Your task to perform on an android device: Turn off the flashlight Image 0: 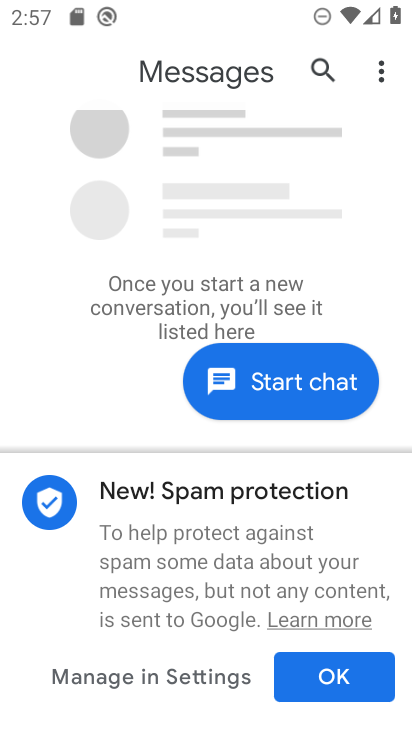
Step 0: press home button
Your task to perform on an android device: Turn off the flashlight Image 1: 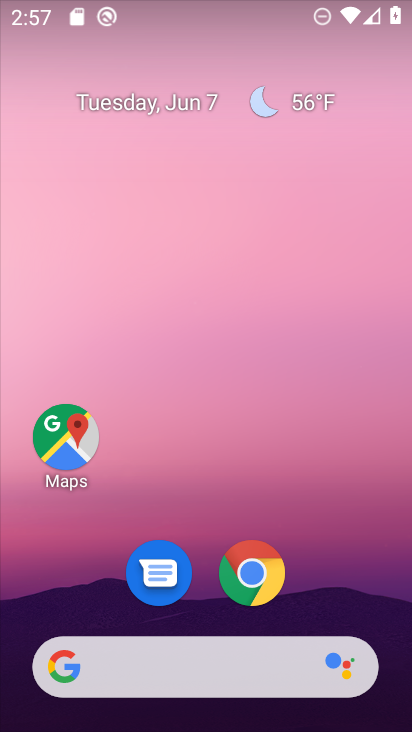
Step 1: drag from (360, 591) to (372, 61)
Your task to perform on an android device: Turn off the flashlight Image 2: 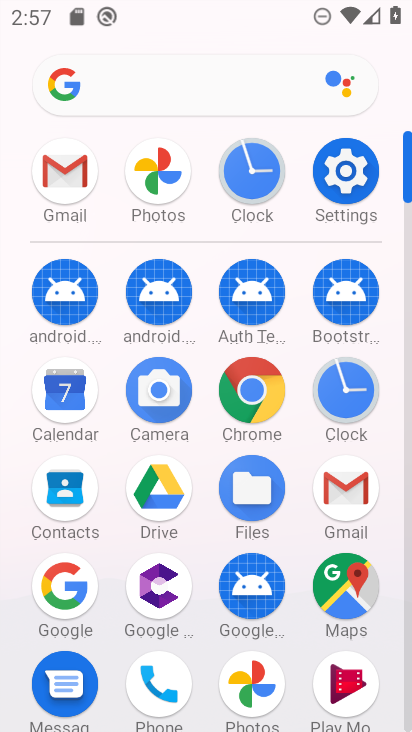
Step 2: click (338, 175)
Your task to perform on an android device: Turn off the flashlight Image 3: 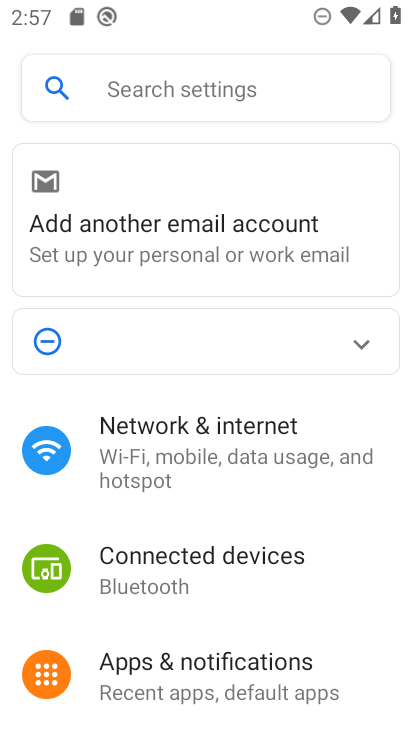
Step 3: task complete